Your task to perform on an android device: Go to Amazon Image 0: 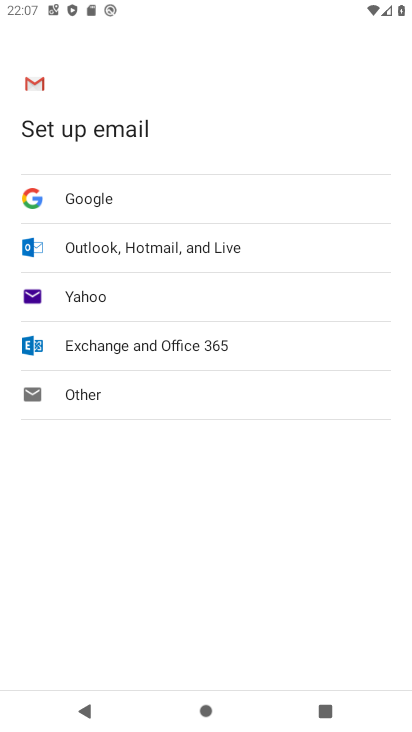
Step 0: press home button
Your task to perform on an android device: Go to Amazon Image 1: 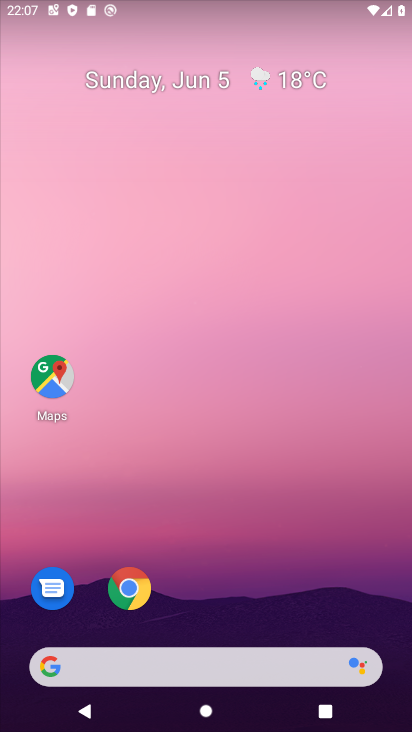
Step 1: drag from (362, 589) to (360, 180)
Your task to perform on an android device: Go to Amazon Image 2: 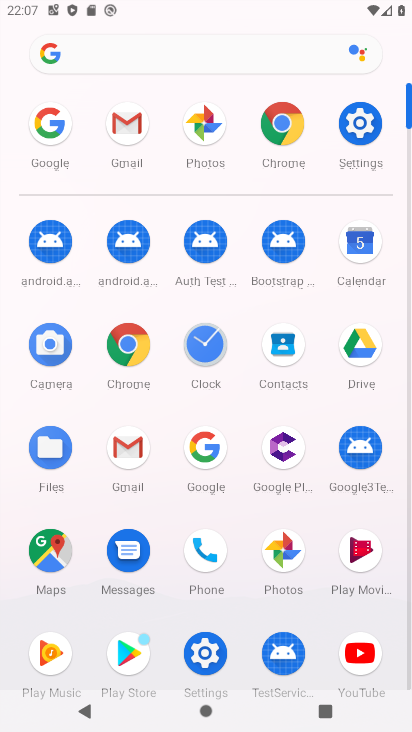
Step 2: click (271, 137)
Your task to perform on an android device: Go to Amazon Image 3: 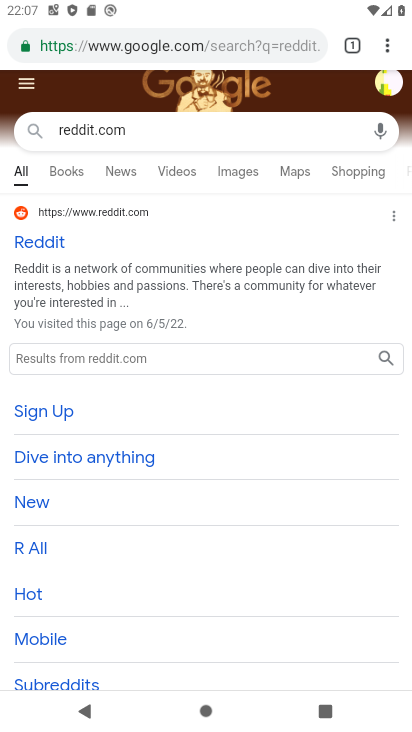
Step 3: click (260, 49)
Your task to perform on an android device: Go to Amazon Image 4: 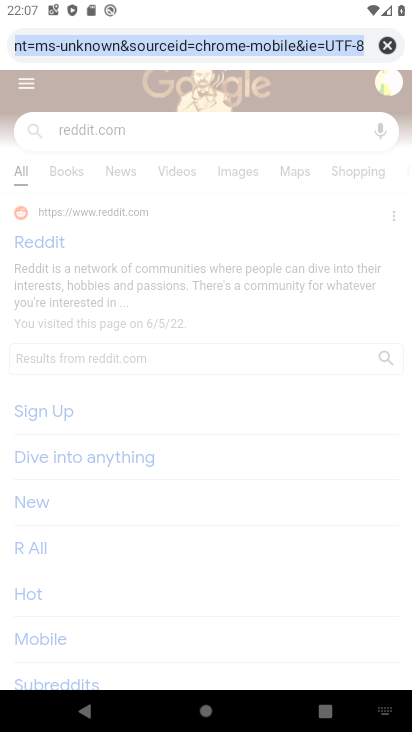
Step 4: click (382, 41)
Your task to perform on an android device: Go to Amazon Image 5: 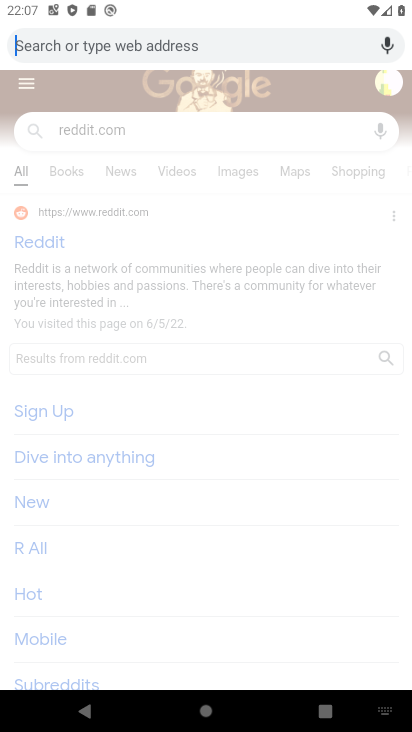
Step 5: type "amazon"
Your task to perform on an android device: Go to Amazon Image 6: 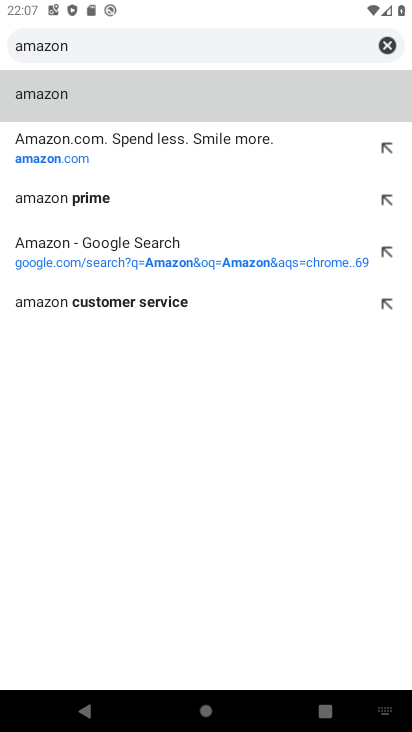
Step 6: click (253, 93)
Your task to perform on an android device: Go to Amazon Image 7: 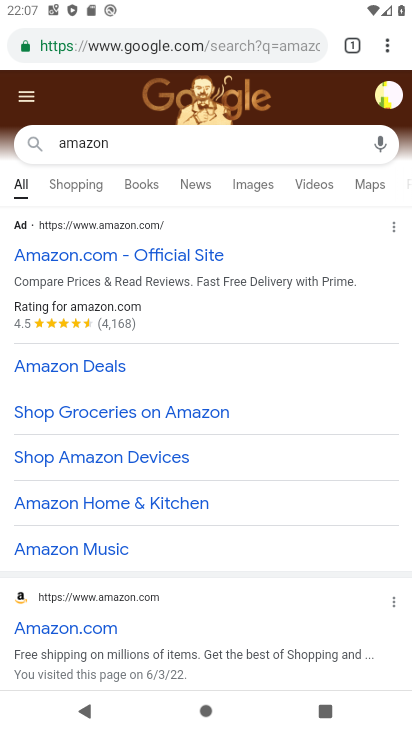
Step 7: click (194, 253)
Your task to perform on an android device: Go to Amazon Image 8: 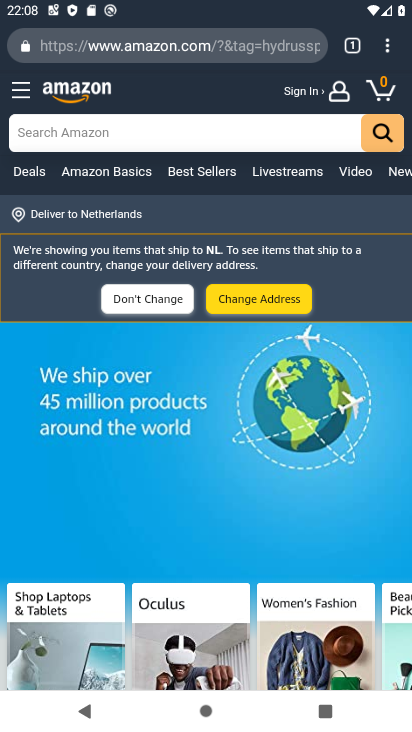
Step 8: task complete